Your task to perform on an android device: toggle wifi Image 0: 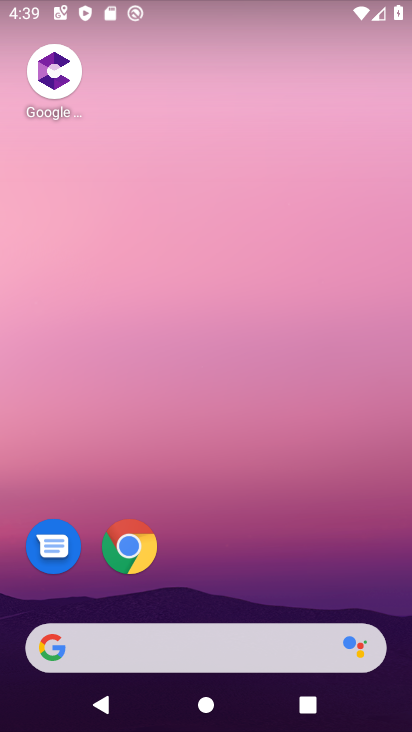
Step 0: drag from (193, 626) to (295, 193)
Your task to perform on an android device: toggle wifi Image 1: 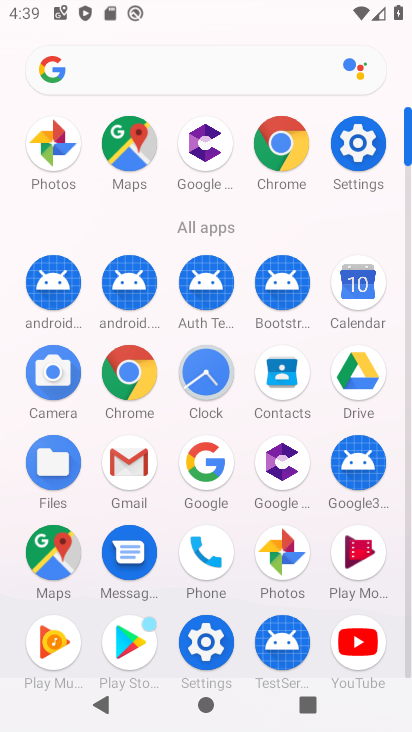
Step 1: drag from (160, 635) to (195, 475)
Your task to perform on an android device: toggle wifi Image 2: 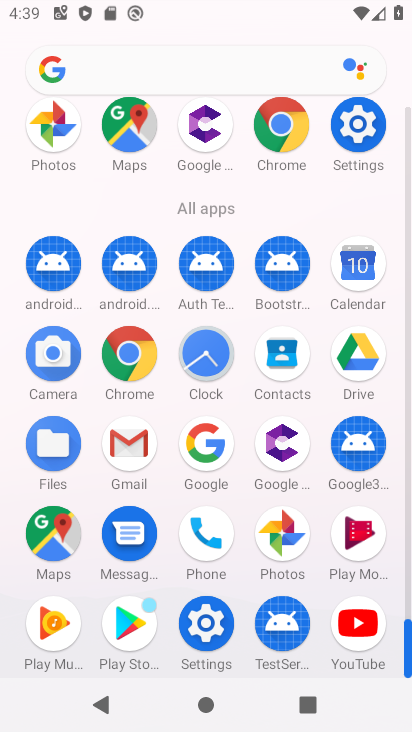
Step 2: click (205, 636)
Your task to perform on an android device: toggle wifi Image 3: 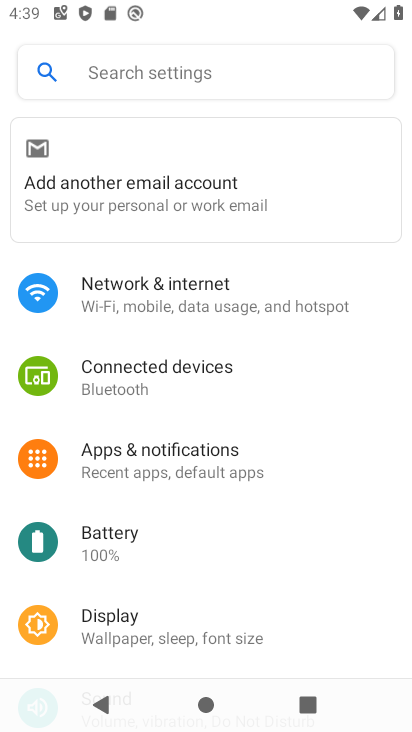
Step 3: click (226, 280)
Your task to perform on an android device: toggle wifi Image 4: 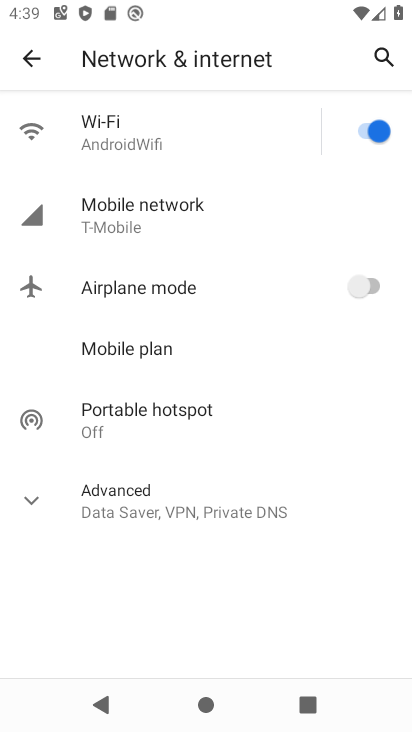
Step 4: click (359, 126)
Your task to perform on an android device: toggle wifi Image 5: 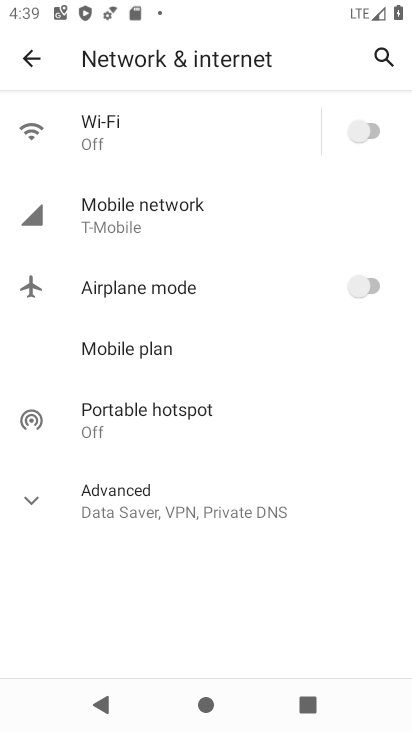
Step 5: task complete